Your task to perform on an android device: What is the news today? Image 0: 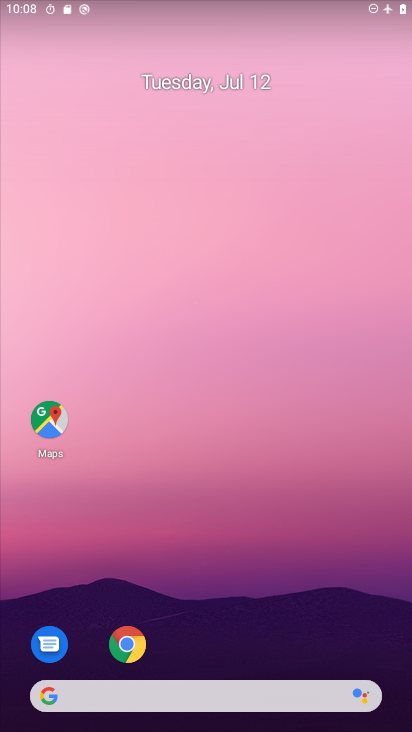
Step 0: drag from (194, 640) to (194, 156)
Your task to perform on an android device: What is the news today? Image 1: 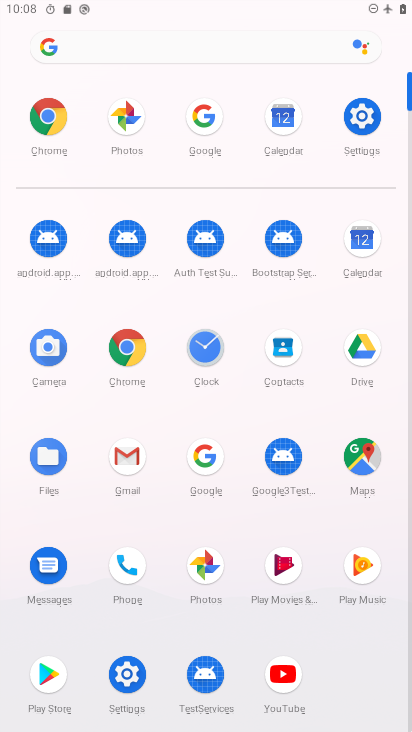
Step 1: click (208, 103)
Your task to perform on an android device: What is the news today? Image 2: 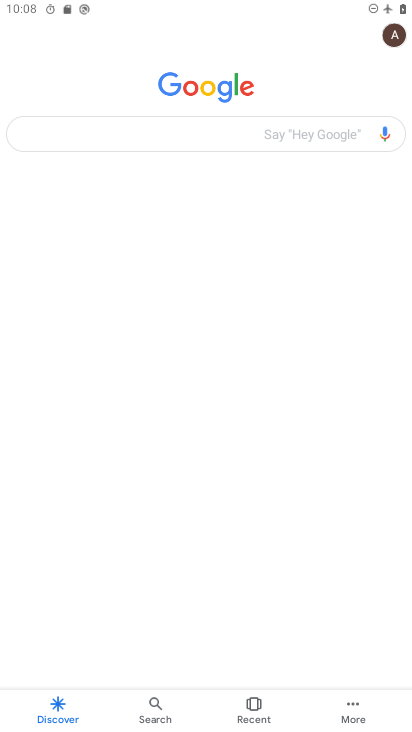
Step 2: click (196, 120)
Your task to perform on an android device: What is the news today? Image 3: 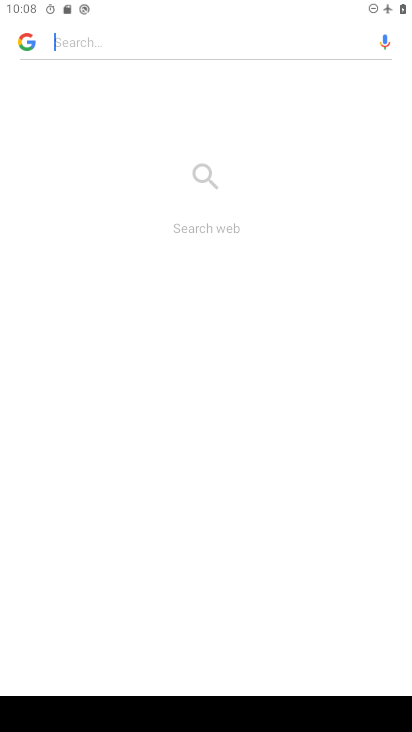
Step 3: type "news today"
Your task to perform on an android device: What is the news today? Image 4: 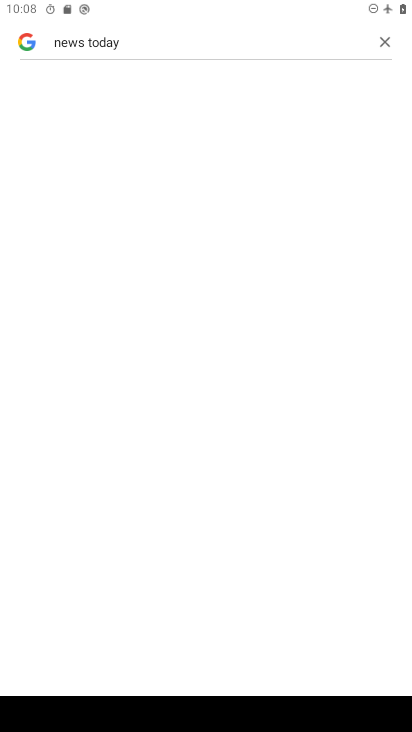
Step 4: task complete